Your task to perform on an android device: Open Amazon Image 0: 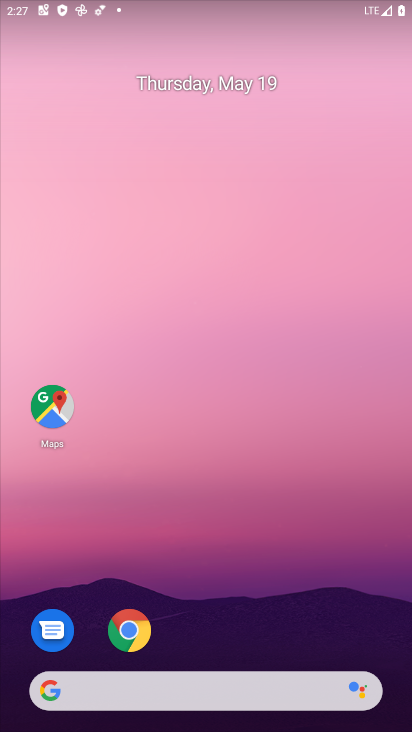
Step 0: click (131, 625)
Your task to perform on an android device: Open Amazon Image 1: 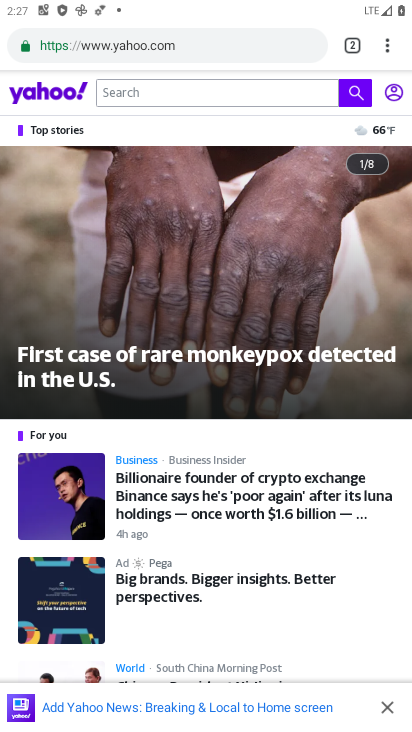
Step 1: click (124, 37)
Your task to perform on an android device: Open Amazon Image 2: 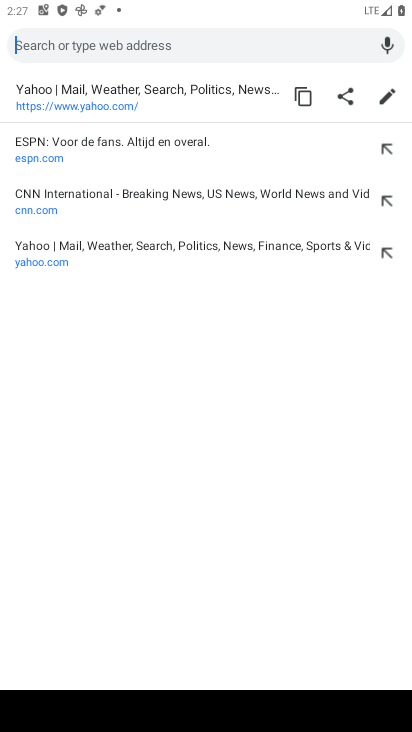
Step 2: type "amazon"
Your task to perform on an android device: Open Amazon Image 3: 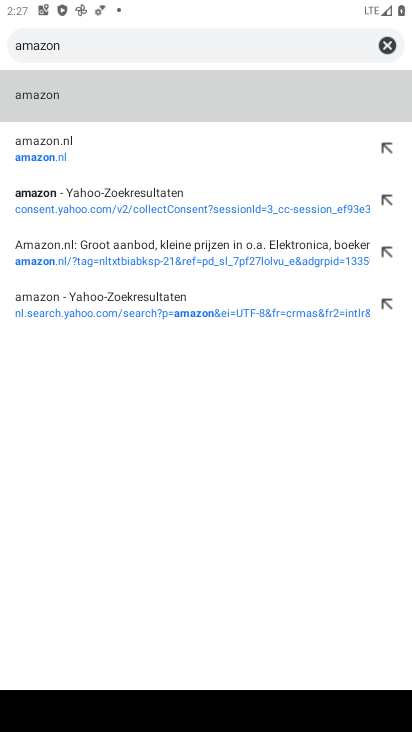
Step 3: click (63, 143)
Your task to perform on an android device: Open Amazon Image 4: 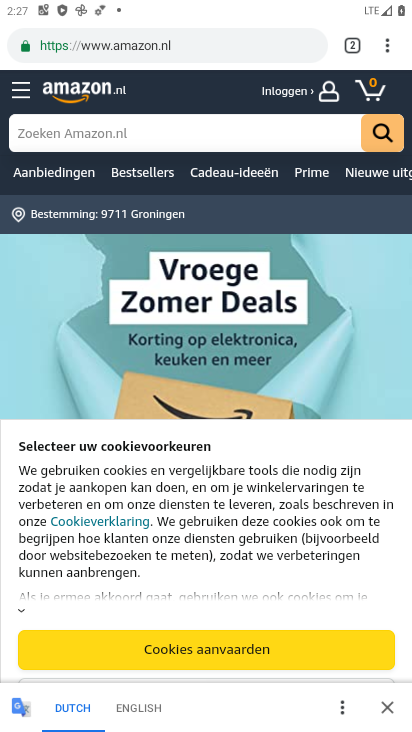
Step 4: task complete